Your task to perform on an android device: turn on wifi Image 0: 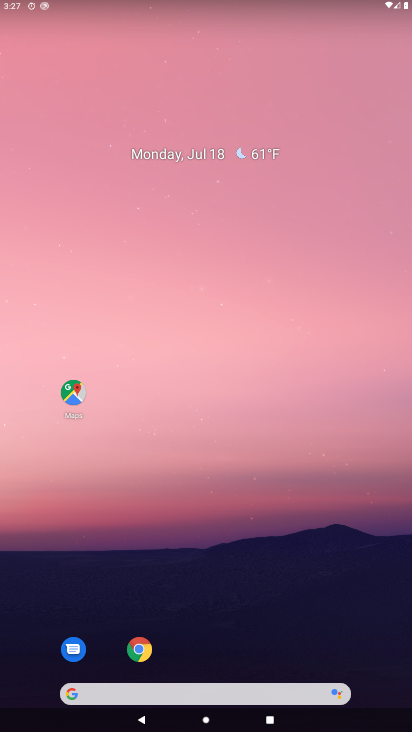
Step 0: drag from (29, 706) to (186, 291)
Your task to perform on an android device: turn on wifi Image 1: 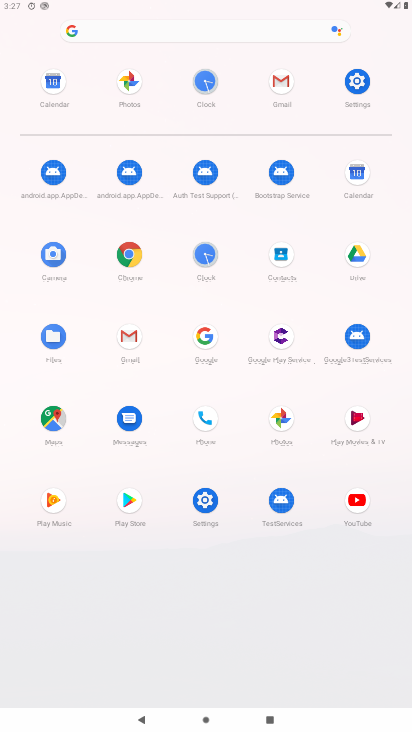
Step 1: click (212, 506)
Your task to perform on an android device: turn on wifi Image 2: 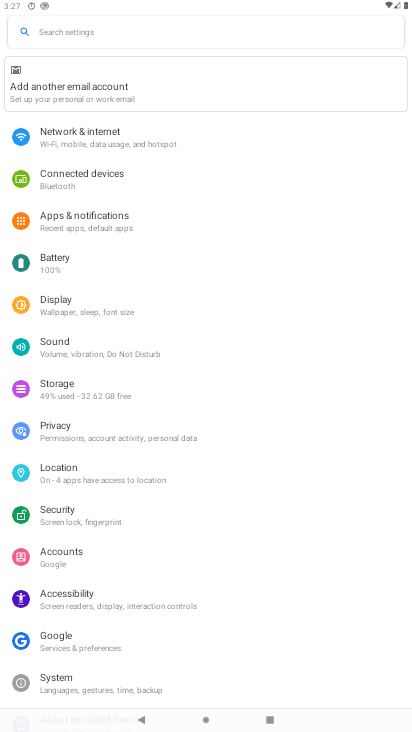
Step 2: click (92, 152)
Your task to perform on an android device: turn on wifi Image 3: 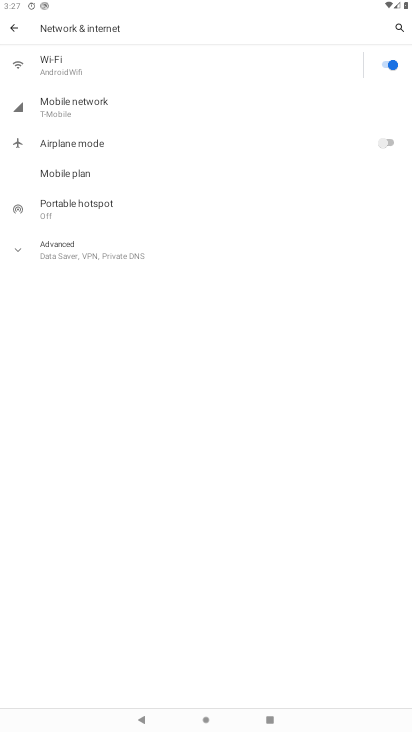
Step 3: task complete